Your task to perform on an android device: turn on priority inbox in the gmail app Image 0: 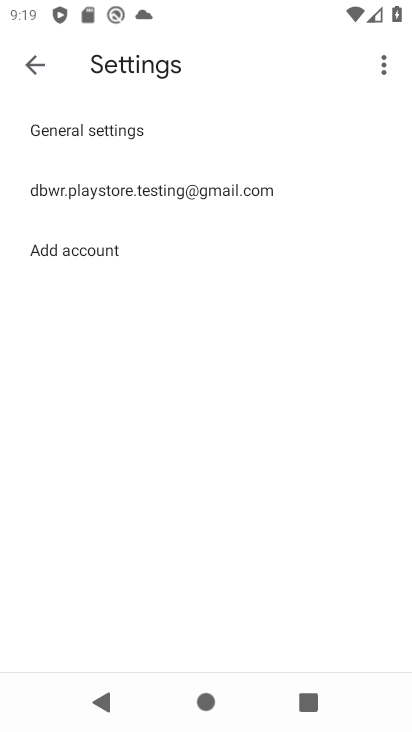
Step 0: press home button
Your task to perform on an android device: turn on priority inbox in the gmail app Image 1: 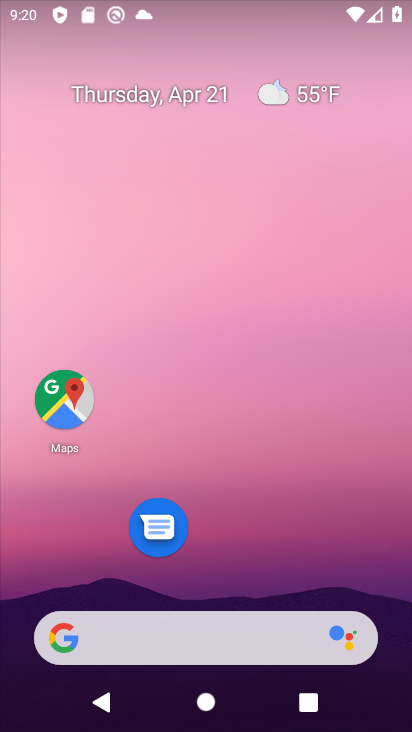
Step 1: drag from (204, 592) to (230, 53)
Your task to perform on an android device: turn on priority inbox in the gmail app Image 2: 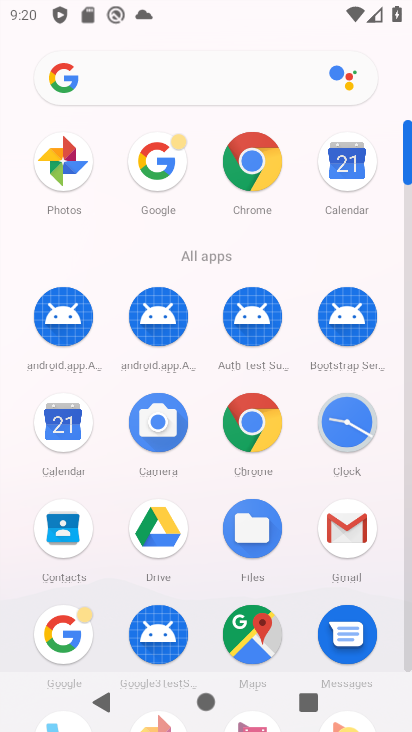
Step 2: click (333, 533)
Your task to perform on an android device: turn on priority inbox in the gmail app Image 3: 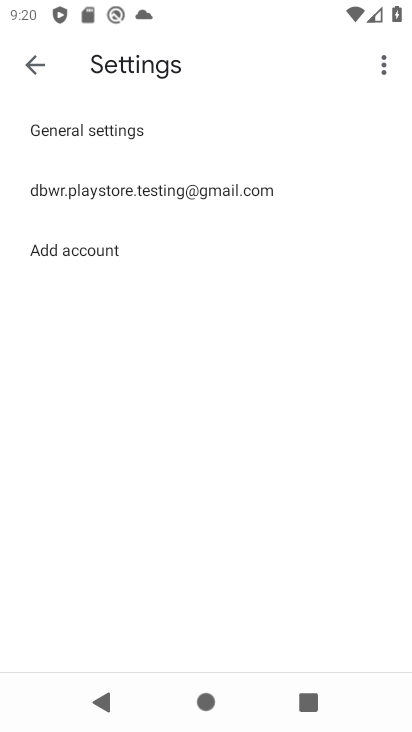
Step 3: click (129, 186)
Your task to perform on an android device: turn on priority inbox in the gmail app Image 4: 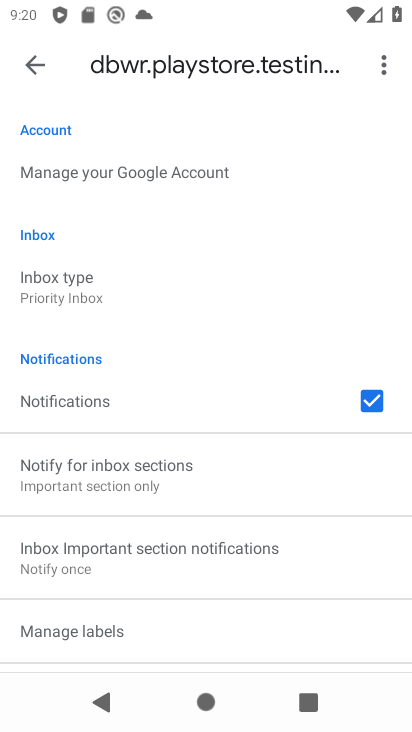
Step 4: click (92, 298)
Your task to perform on an android device: turn on priority inbox in the gmail app Image 5: 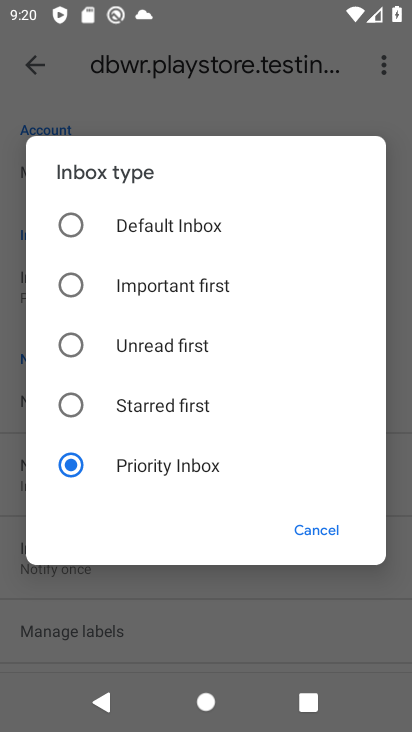
Step 5: task complete